Your task to perform on an android device: Search for pizza restaurants on Maps Image 0: 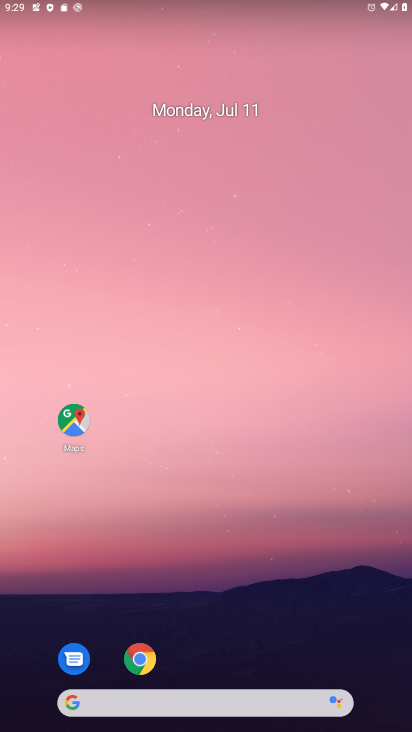
Step 0: click (70, 419)
Your task to perform on an android device: Search for pizza restaurants on Maps Image 1: 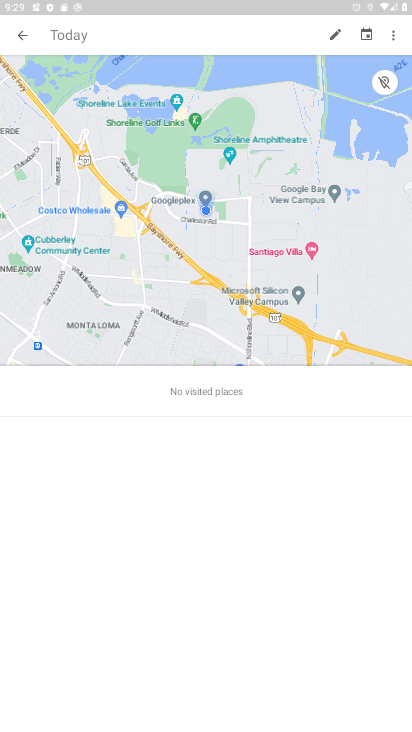
Step 1: click (19, 43)
Your task to perform on an android device: Search for pizza restaurants on Maps Image 2: 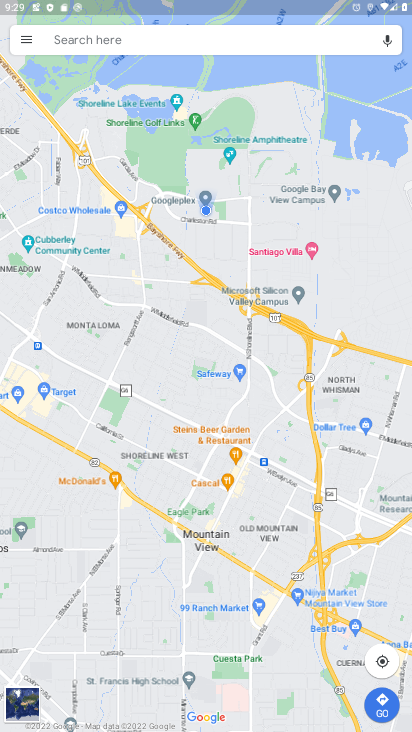
Step 2: click (144, 39)
Your task to perform on an android device: Search for pizza restaurants on Maps Image 3: 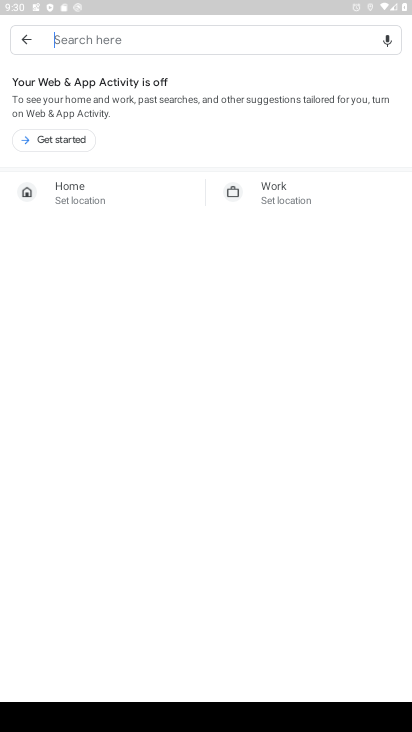
Step 3: type "pizza restaurants"
Your task to perform on an android device: Search for pizza restaurants on Maps Image 4: 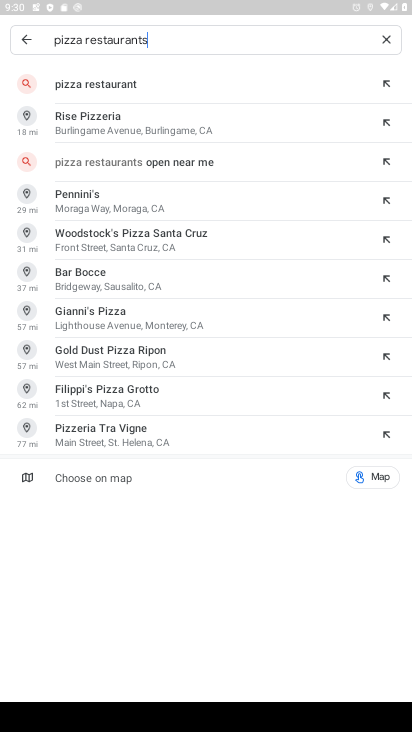
Step 4: click (131, 81)
Your task to perform on an android device: Search for pizza restaurants on Maps Image 5: 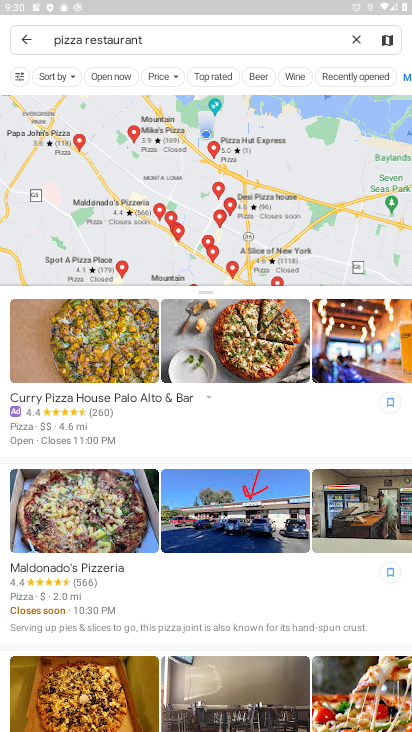
Step 5: task complete